Your task to perform on an android device: change the clock style Image 0: 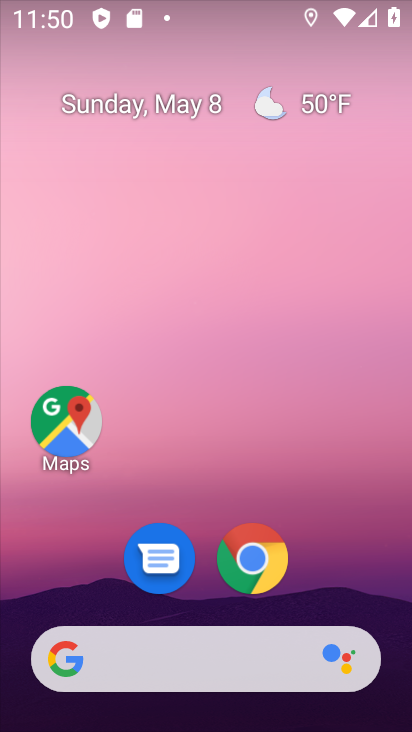
Step 0: drag from (199, 670) to (194, 51)
Your task to perform on an android device: change the clock style Image 1: 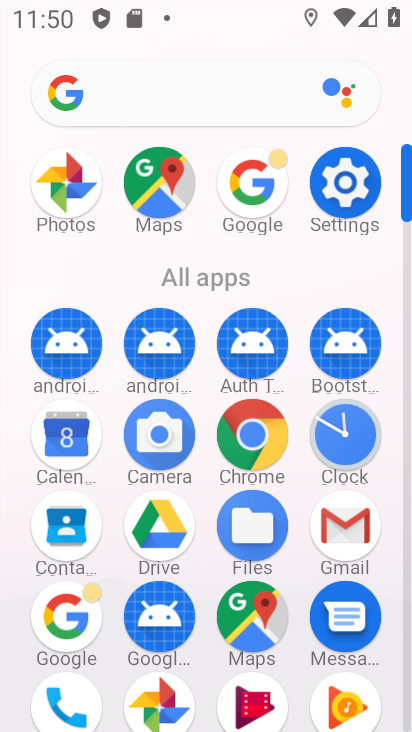
Step 1: click (363, 429)
Your task to perform on an android device: change the clock style Image 2: 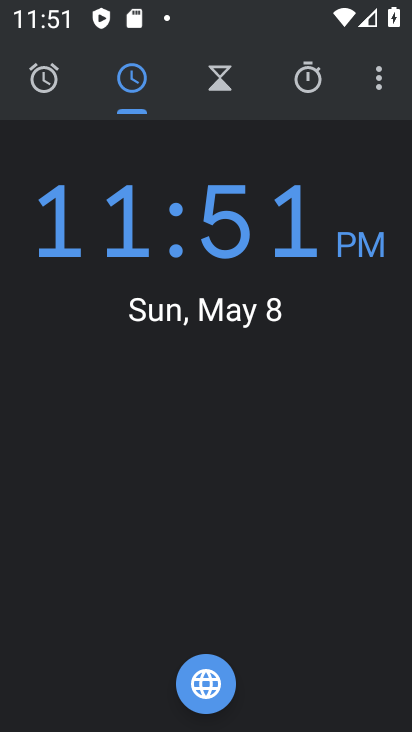
Step 2: click (384, 75)
Your task to perform on an android device: change the clock style Image 3: 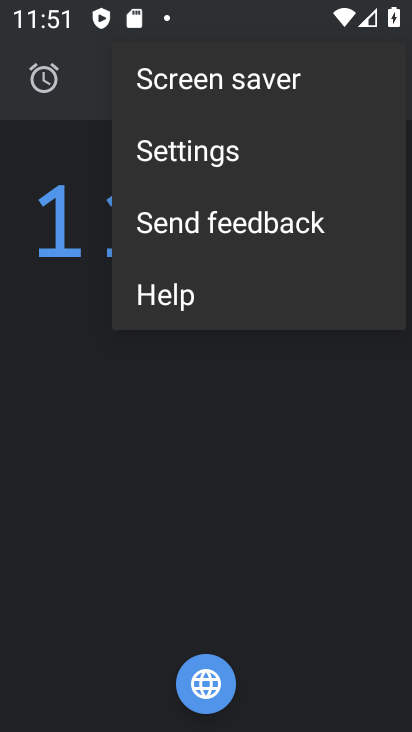
Step 3: click (223, 162)
Your task to perform on an android device: change the clock style Image 4: 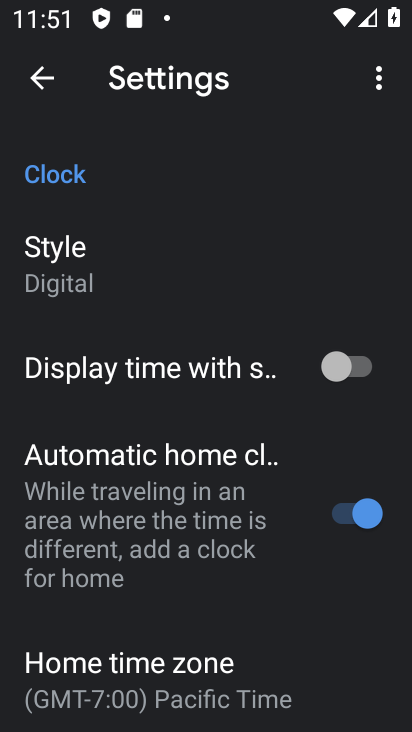
Step 4: click (99, 280)
Your task to perform on an android device: change the clock style Image 5: 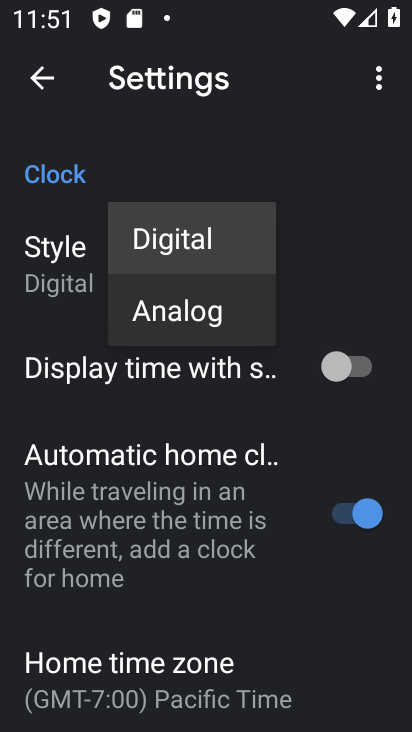
Step 5: click (224, 317)
Your task to perform on an android device: change the clock style Image 6: 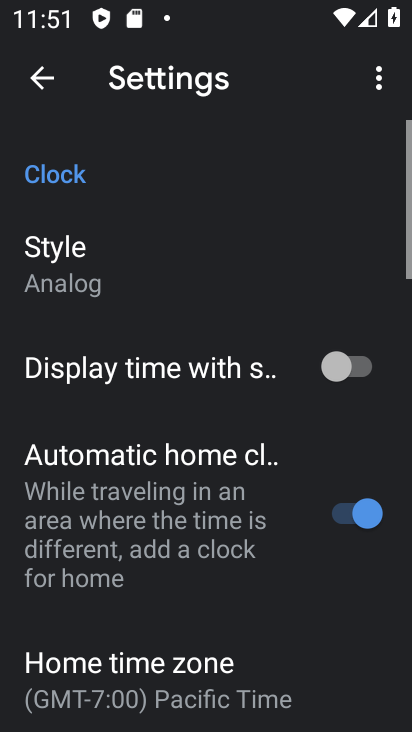
Step 6: task complete